Your task to perform on an android device: Open CNN.com Image 0: 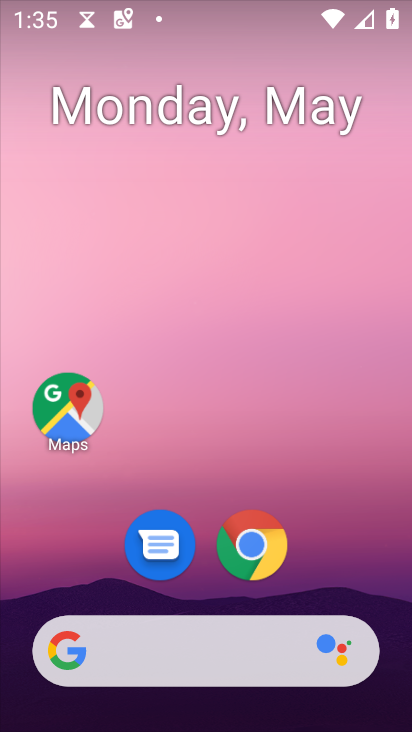
Step 0: click (276, 541)
Your task to perform on an android device: Open CNN.com Image 1: 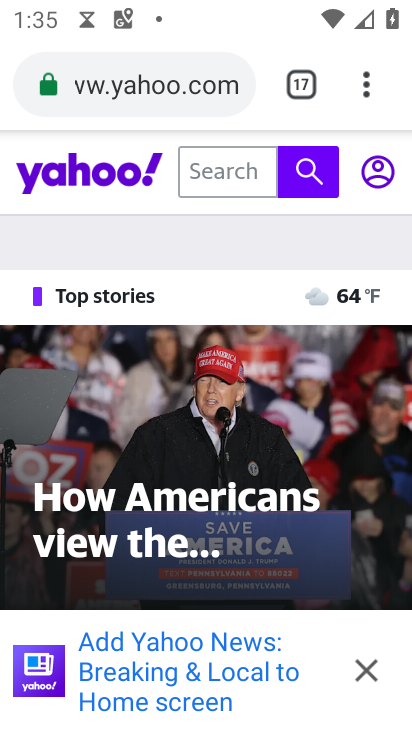
Step 1: click (360, 80)
Your task to perform on an android device: Open CNN.com Image 2: 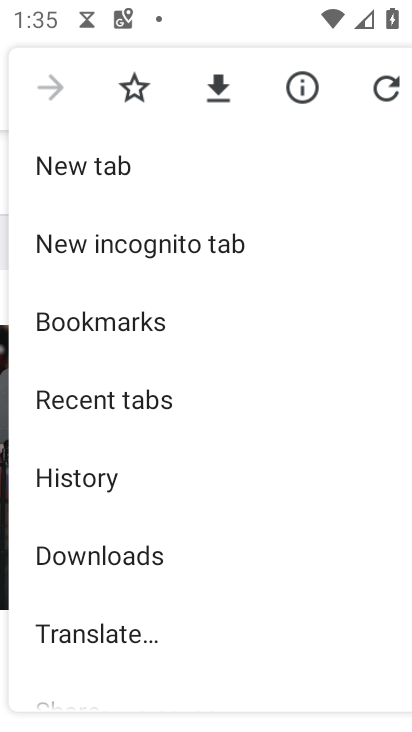
Step 2: click (118, 181)
Your task to perform on an android device: Open CNN.com Image 3: 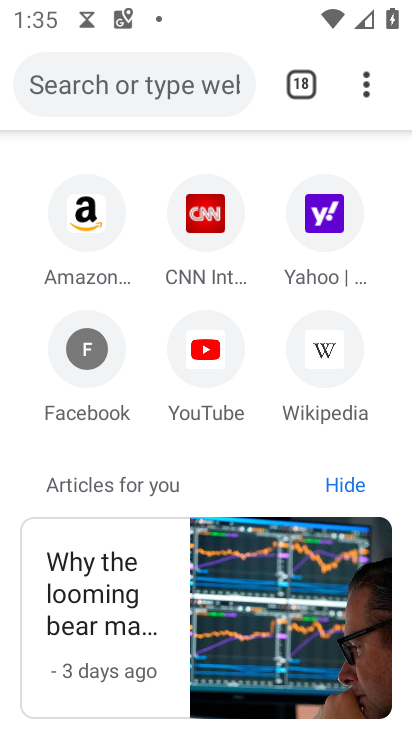
Step 3: click (193, 242)
Your task to perform on an android device: Open CNN.com Image 4: 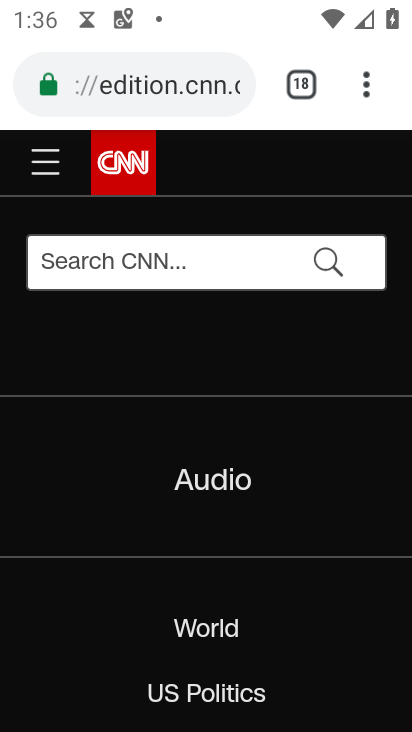
Step 4: task complete